Your task to perform on an android device: Open the calendar and show me this week's events? Image 0: 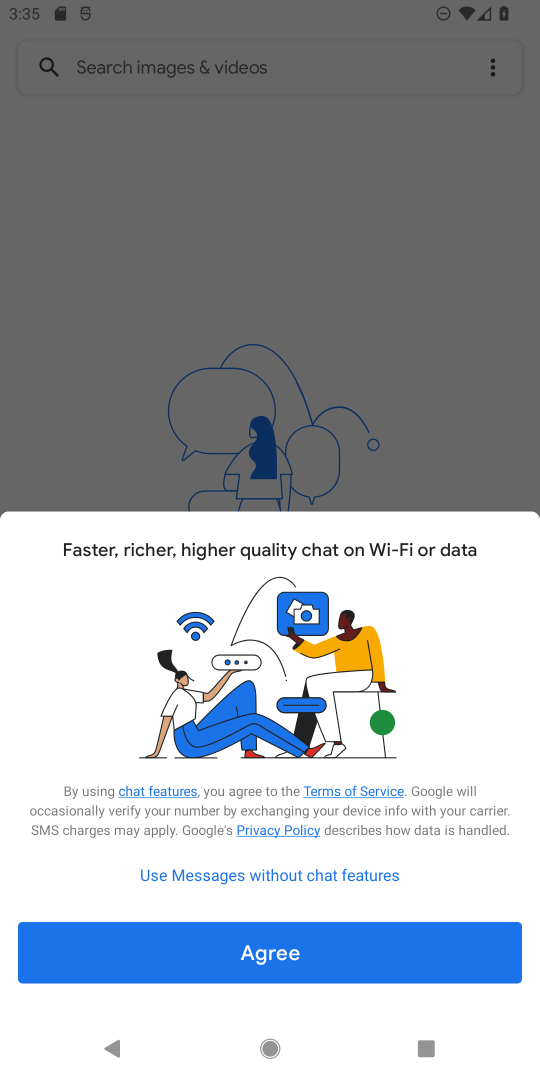
Step 0: press home button
Your task to perform on an android device: Open the calendar and show me this week's events? Image 1: 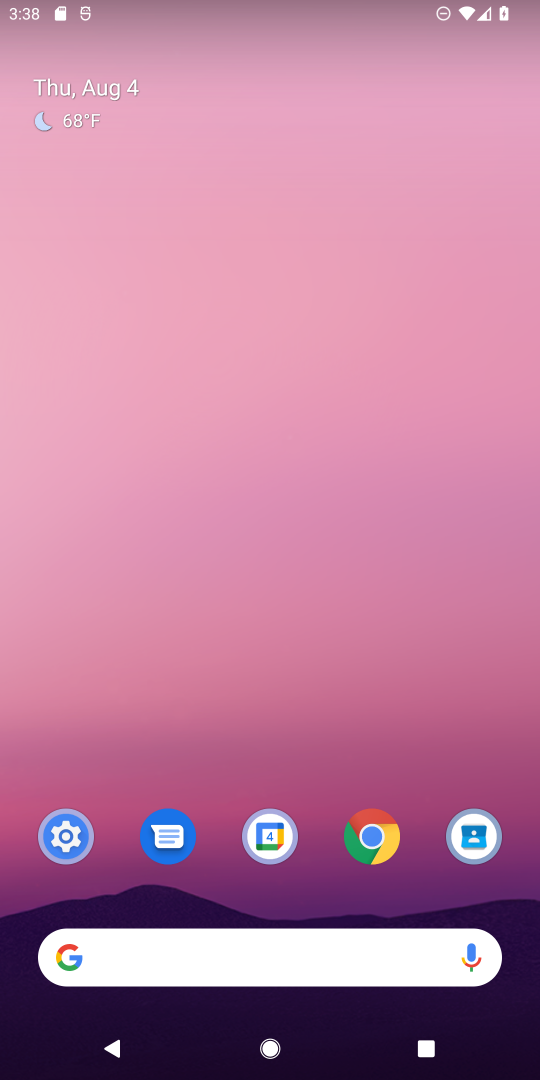
Step 1: click (262, 825)
Your task to perform on an android device: Open the calendar and show me this week's events? Image 2: 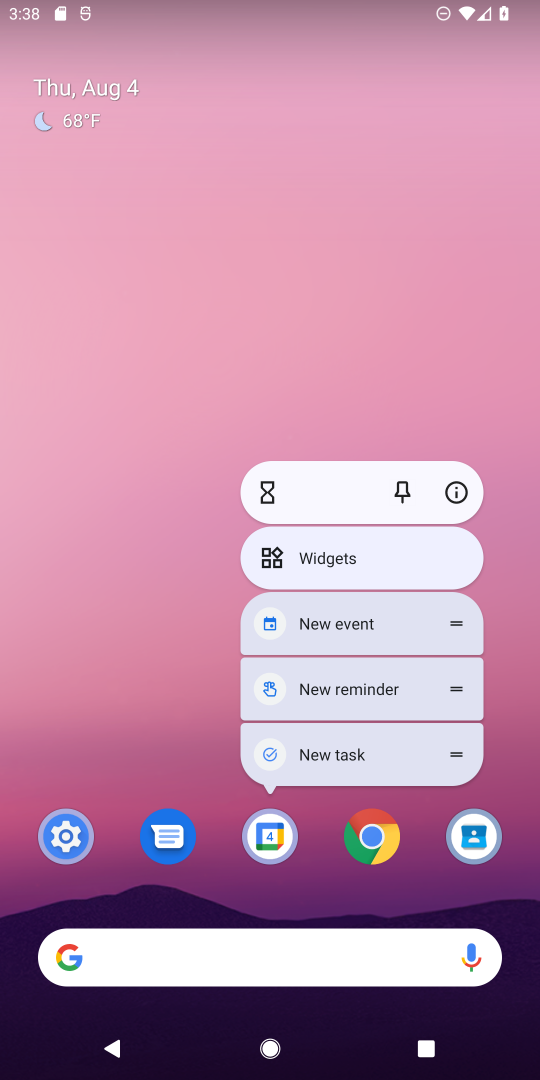
Step 2: click (282, 845)
Your task to perform on an android device: Open the calendar and show me this week's events? Image 3: 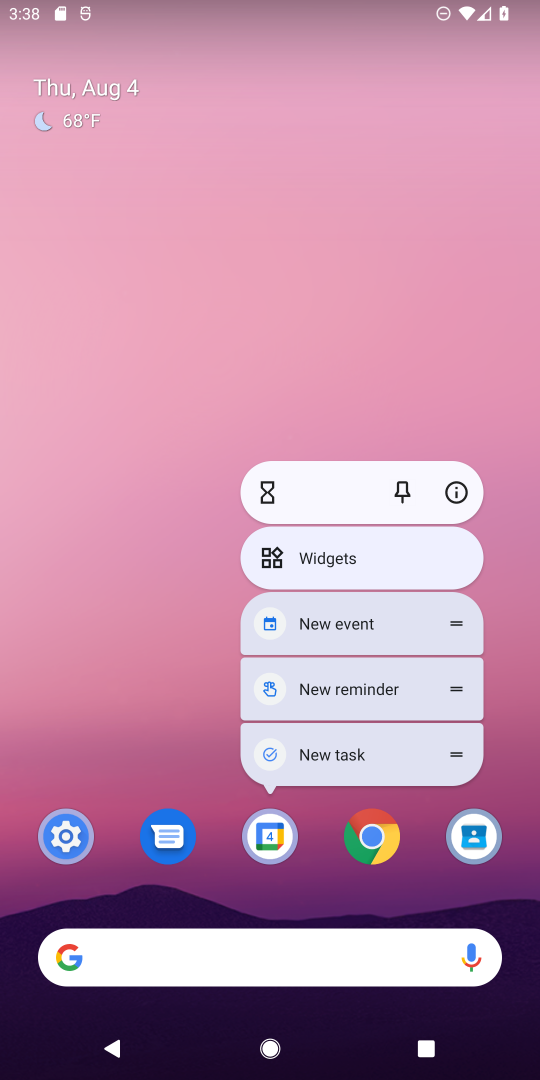
Step 3: click (282, 845)
Your task to perform on an android device: Open the calendar and show me this week's events? Image 4: 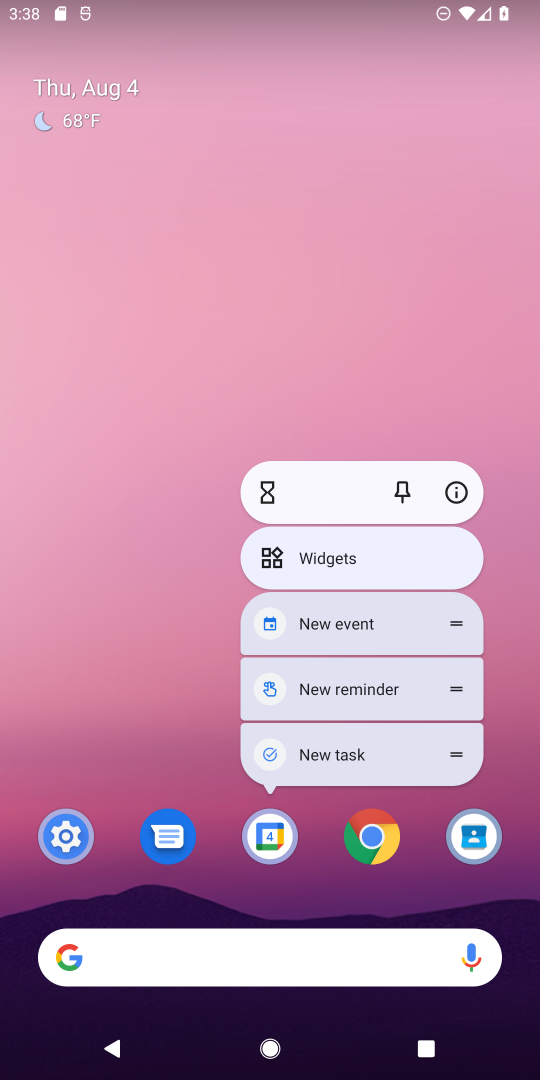
Step 4: click (282, 845)
Your task to perform on an android device: Open the calendar and show me this week's events? Image 5: 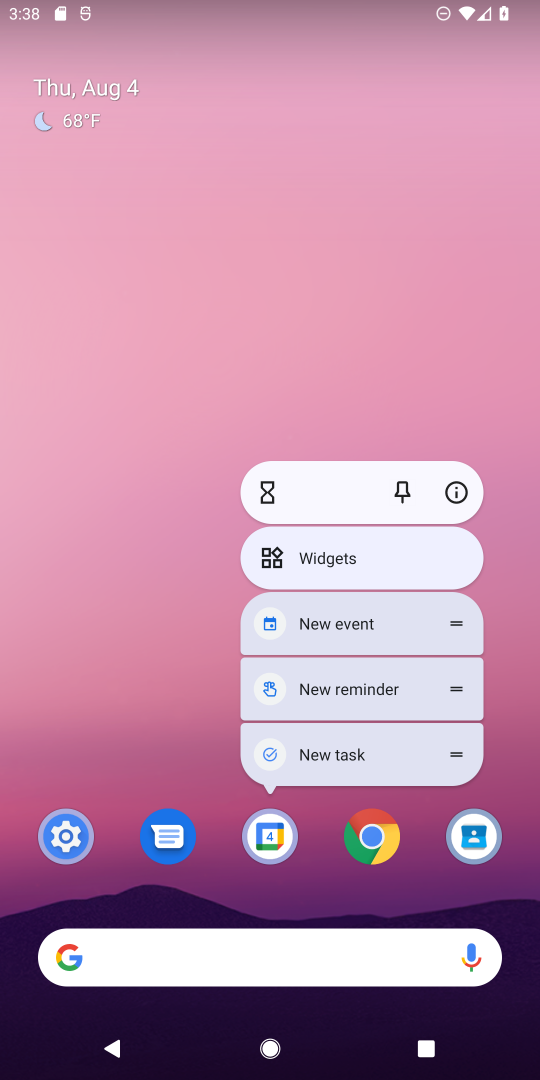
Step 5: click (259, 834)
Your task to perform on an android device: Open the calendar and show me this week's events? Image 6: 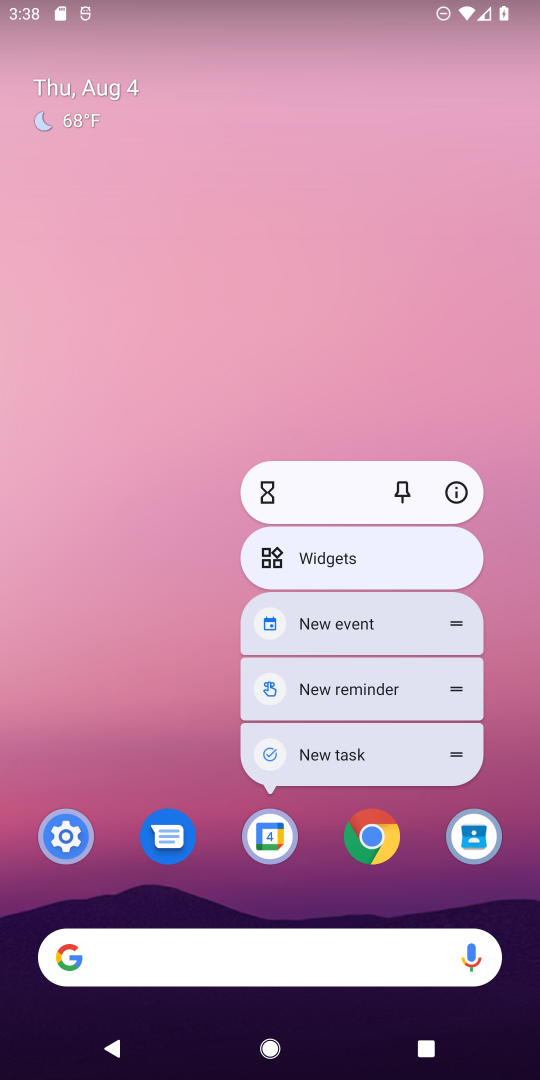
Step 6: click (266, 847)
Your task to perform on an android device: Open the calendar and show me this week's events? Image 7: 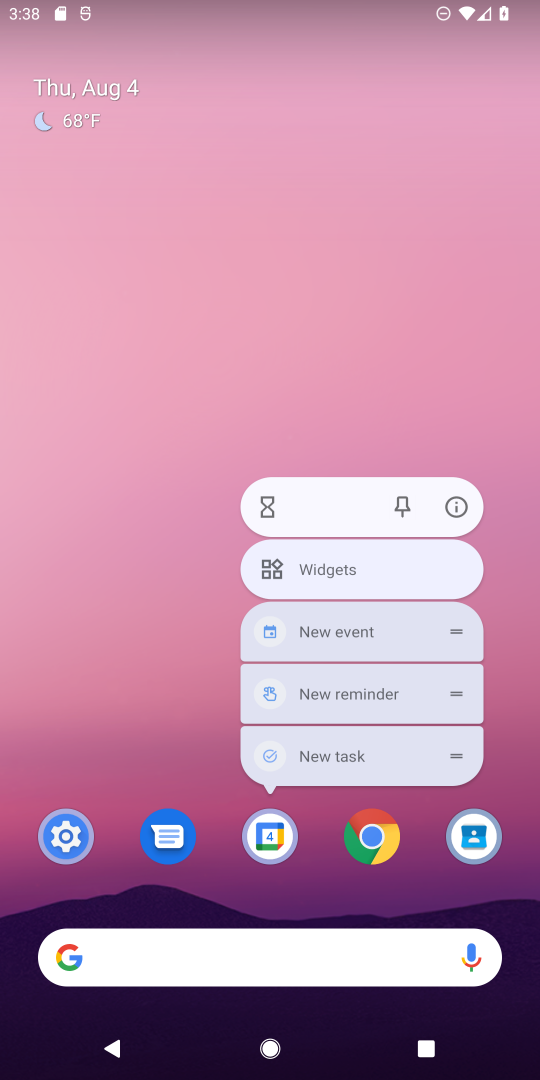
Step 7: click (266, 847)
Your task to perform on an android device: Open the calendar and show me this week's events? Image 8: 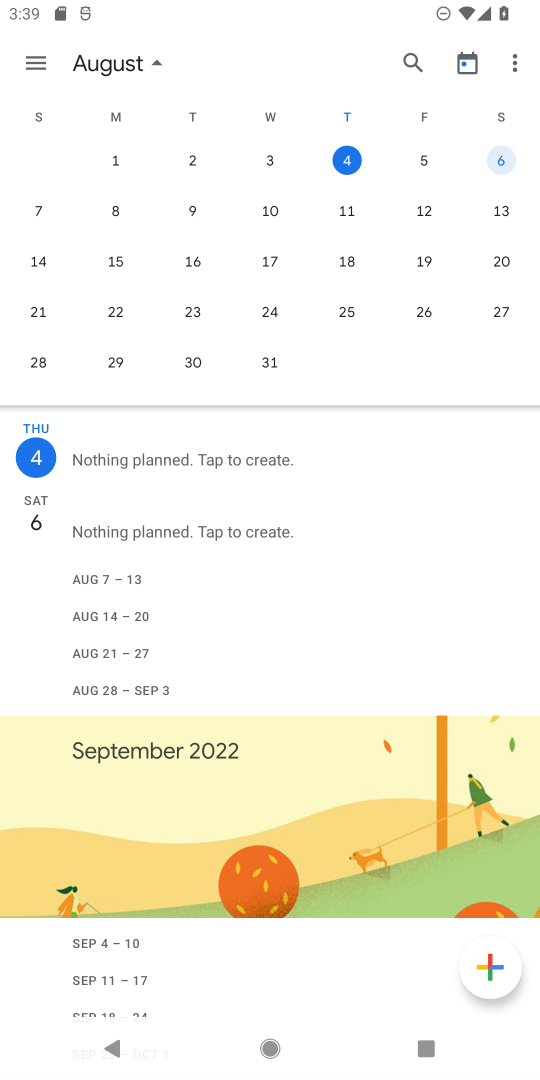
Step 8: task complete